Your task to perform on an android device: Open location settings Image 0: 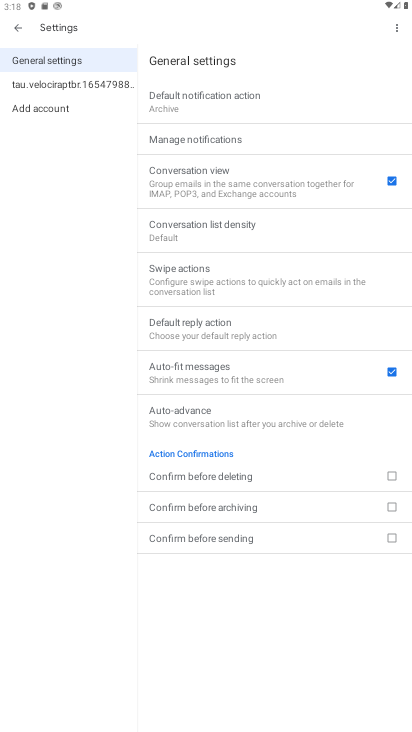
Step 0: press home button
Your task to perform on an android device: Open location settings Image 1: 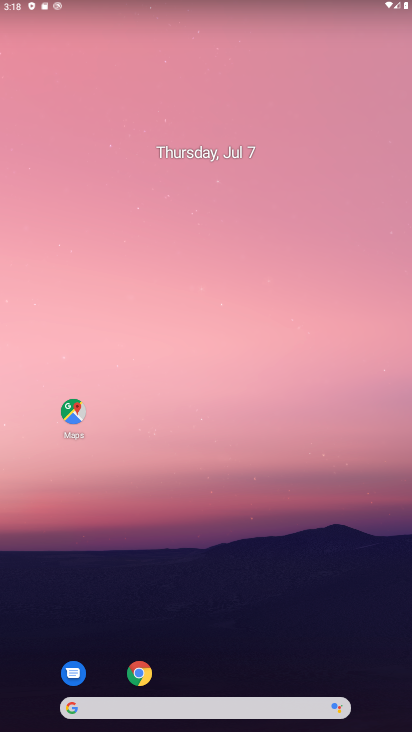
Step 1: drag from (287, 136) to (300, 25)
Your task to perform on an android device: Open location settings Image 2: 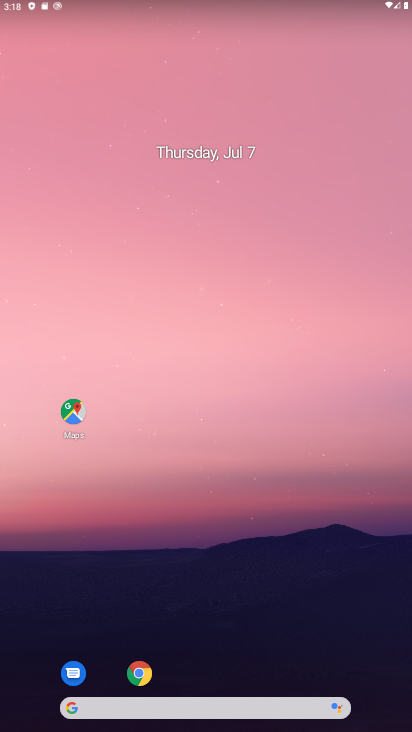
Step 2: drag from (205, 503) to (298, 2)
Your task to perform on an android device: Open location settings Image 3: 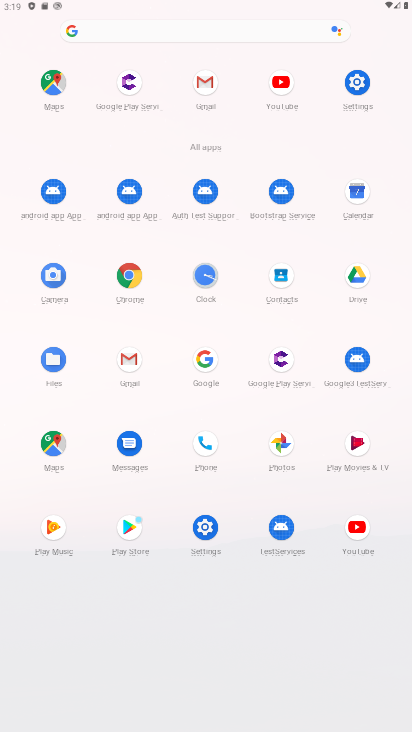
Step 3: click (349, 83)
Your task to perform on an android device: Open location settings Image 4: 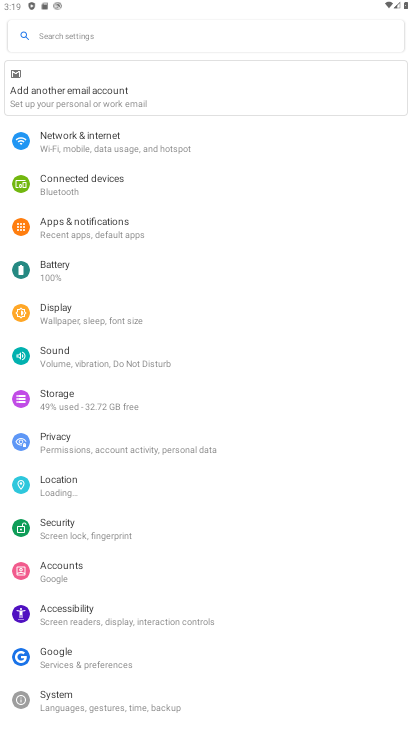
Step 4: click (45, 478)
Your task to perform on an android device: Open location settings Image 5: 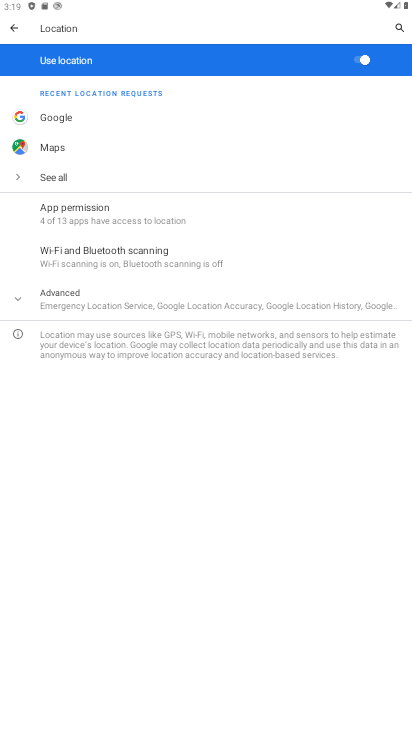
Step 5: task complete